Your task to perform on an android device: turn pop-ups off in chrome Image 0: 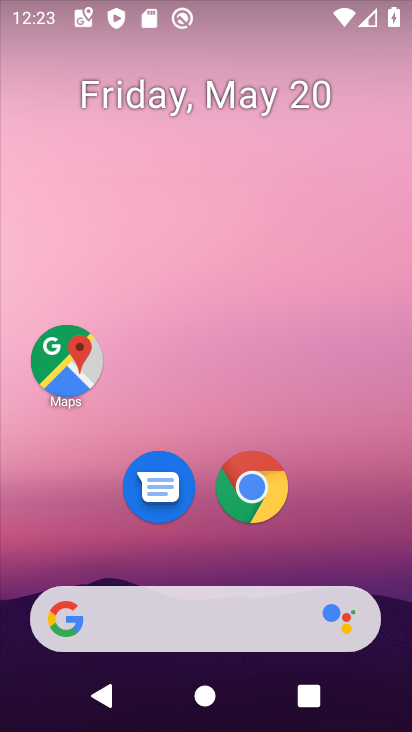
Step 0: click (249, 490)
Your task to perform on an android device: turn pop-ups off in chrome Image 1: 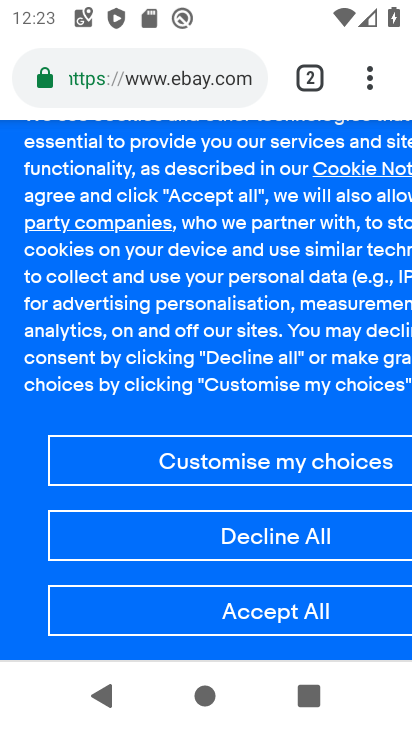
Step 1: drag from (372, 75) to (152, 543)
Your task to perform on an android device: turn pop-ups off in chrome Image 2: 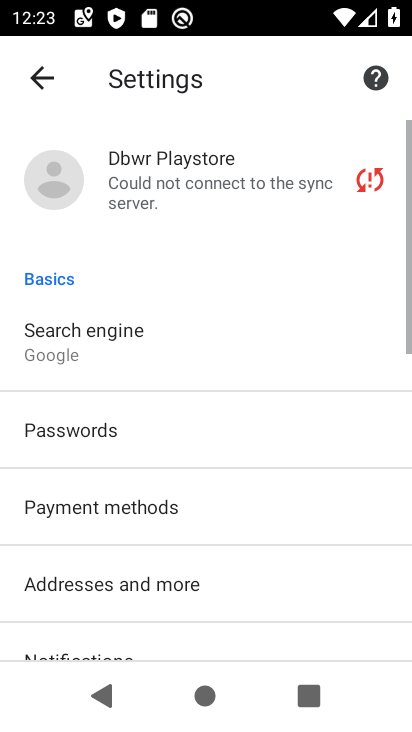
Step 2: drag from (195, 594) to (327, 83)
Your task to perform on an android device: turn pop-ups off in chrome Image 3: 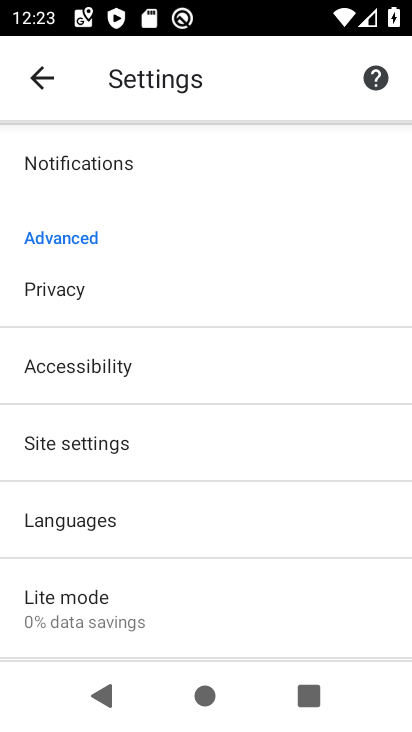
Step 3: click (53, 445)
Your task to perform on an android device: turn pop-ups off in chrome Image 4: 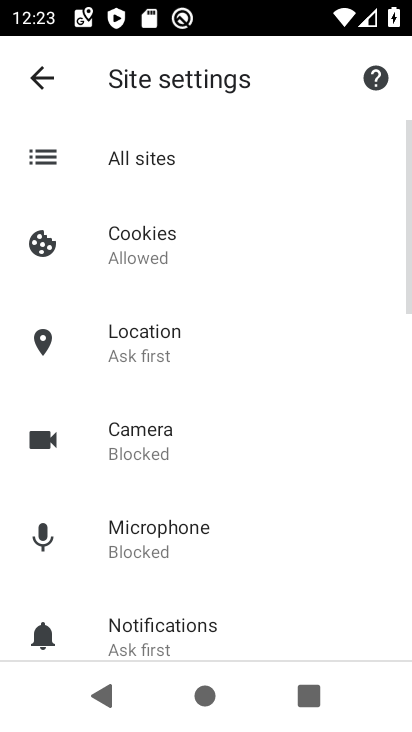
Step 4: drag from (181, 621) to (263, 192)
Your task to perform on an android device: turn pop-ups off in chrome Image 5: 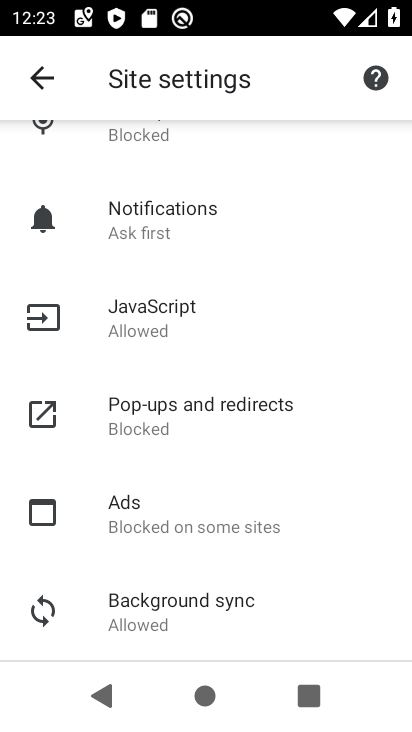
Step 5: click (128, 437)
Your task to perform on an android device: turn pop-ups off in chrome Image 6: 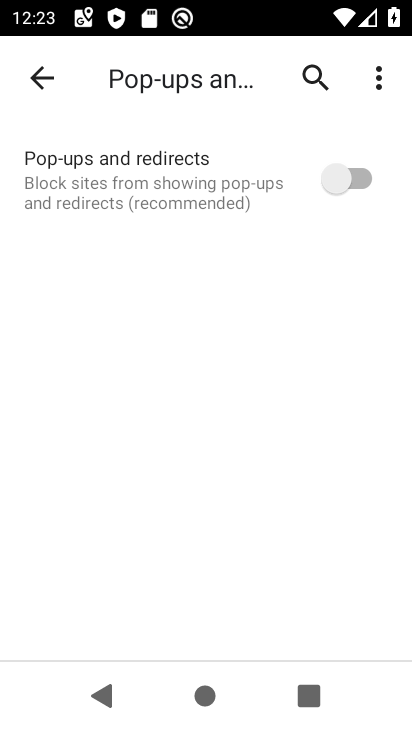
Step 6: task complete